Your task to perform on an android device: Open Yahoo.com Image 0: 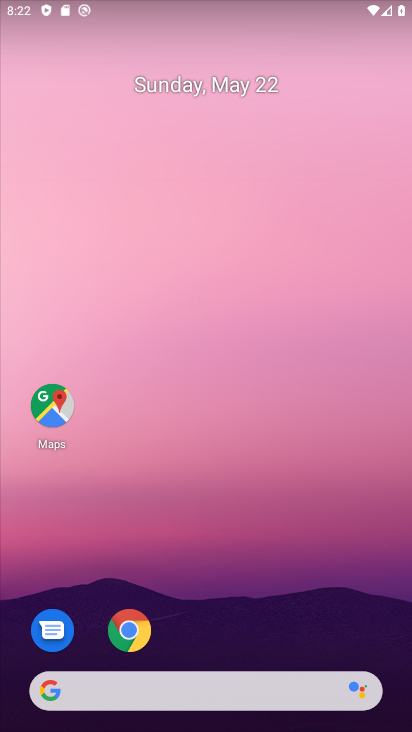
Step 0: press home button
Your task to perform on an android device: Open Yahoo.com Image 1: 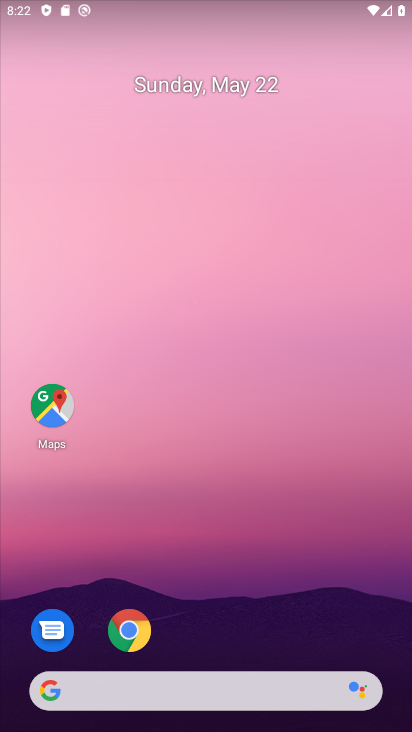
Step 1: click (129, 627)
Your task to perform on an android device: Open Yahoo.com Image 2: 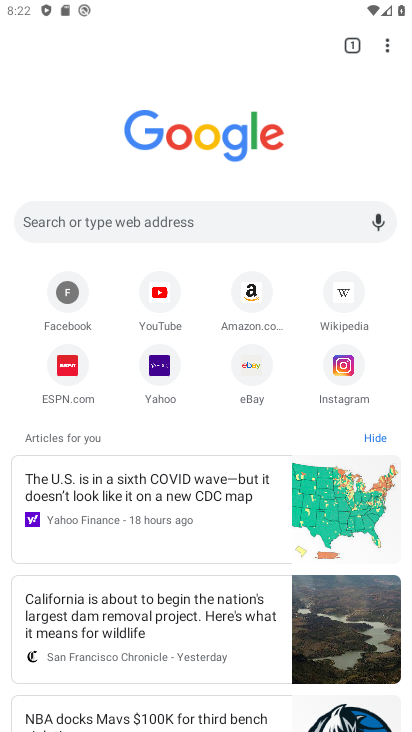
Step 2: click (157, 363)
Your task to perform on an android device: Open Yahoo.com Image 3: 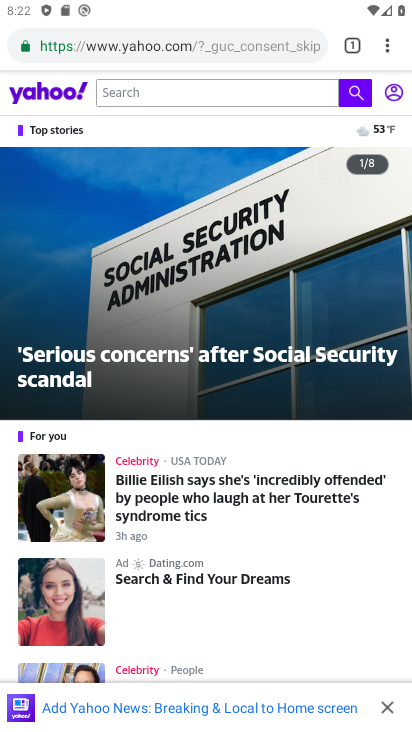
Step 3: task complete